Your task to perform on an android device: Search for pizza restaurants on Maps Image 0: 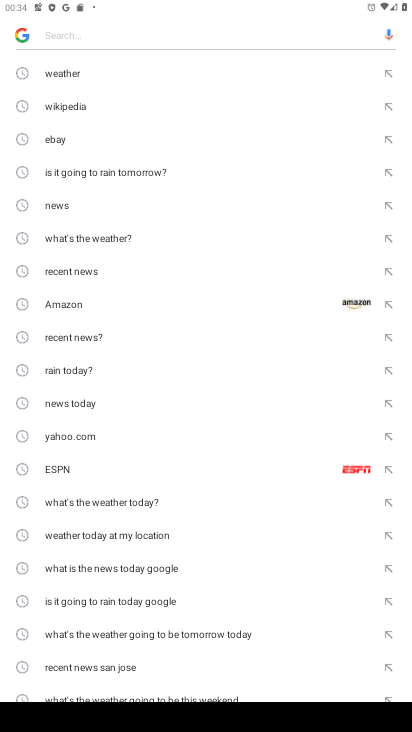
Step 0: press home button
Your task to perform on an android device: Search for pizza restaurants on Maps Image 1: 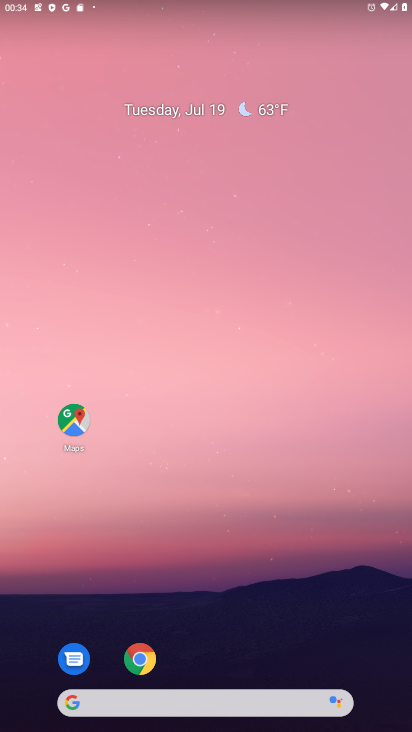
Step 1: click (86, 433)
Your task to perform on an android device: Search for pizza restaurants on Maps Image 2: 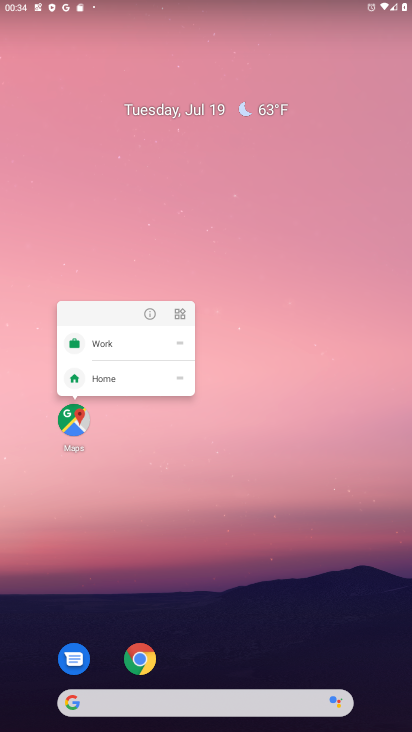
Step 2: click (86, 433)
Your task to perform on an android device: Search for pizza restaurants on Maps Image 3: 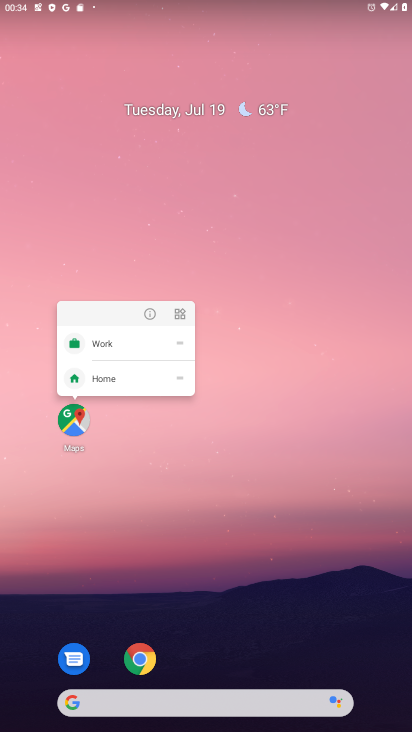
Step 3: click (86, 433)
Your task to perform on an android device: Search for pizza restaurants on Maps Image 4: 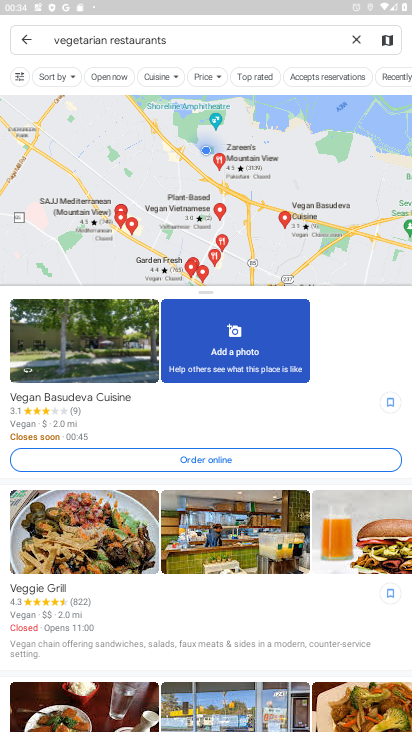
Step 4: click (352, 37)
Your task to perform on an android device: Search for pizza restaurants on Maps Image 5: 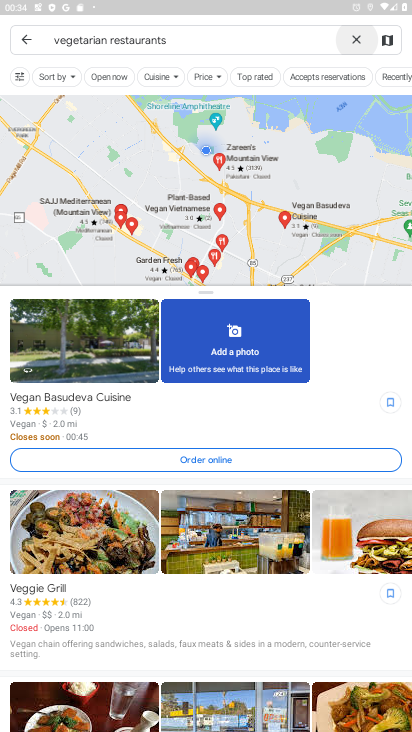
Step 5: click (290, 40)
Your task to perform on an android device: Search for pizza restaurants on Maps Image 6: 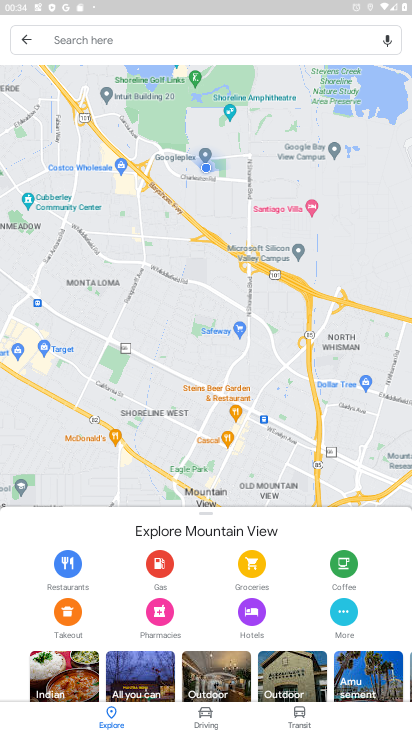
Step 6: click (290, 40)
Your task to perform on an android device: Search for pizza restaurants on Maps Image 7: 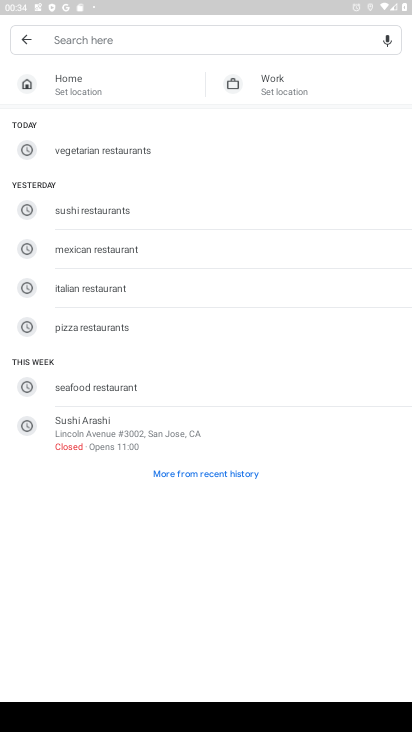
Step 7: type " pizza restaurants"
Your task to perform on an android device: Search for pizza restaurants on Maps Image 8: 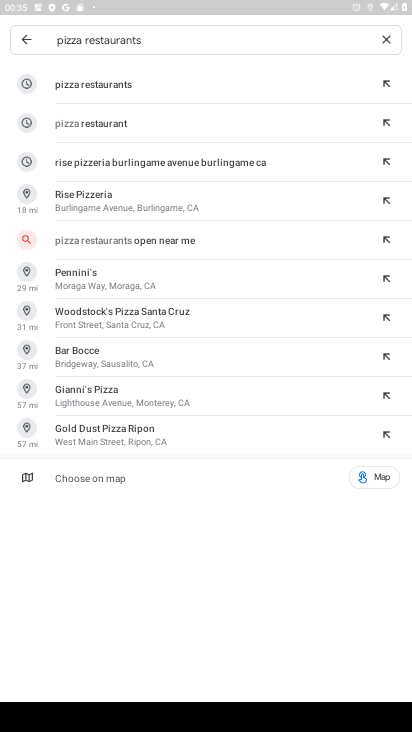
Step 8: click (77, 89)
Your task to perform on an android device: Search for pizza restaurants on Maps Image 9: 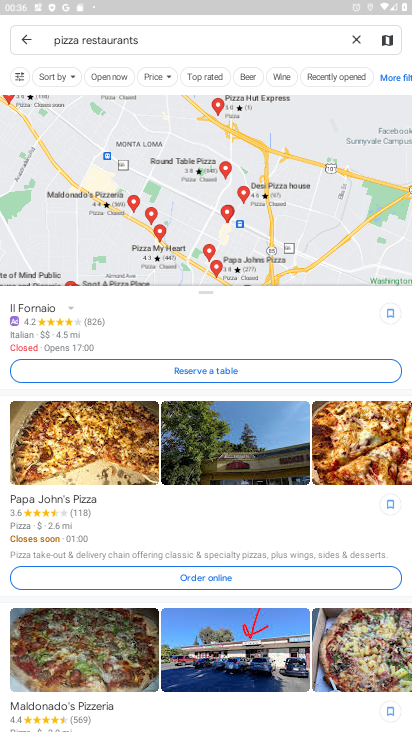
Step 9: task complete